Your task to perform on an android device: change keyboard looks Image 0: 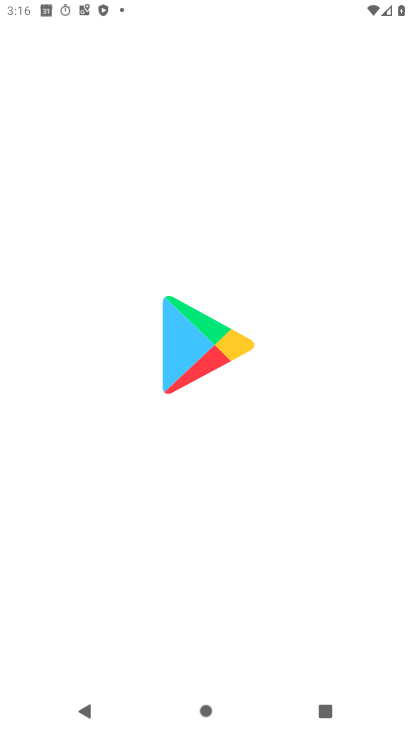
Step 0: press home button
Your task to perform on an android device: change keyboard looks Image 1: 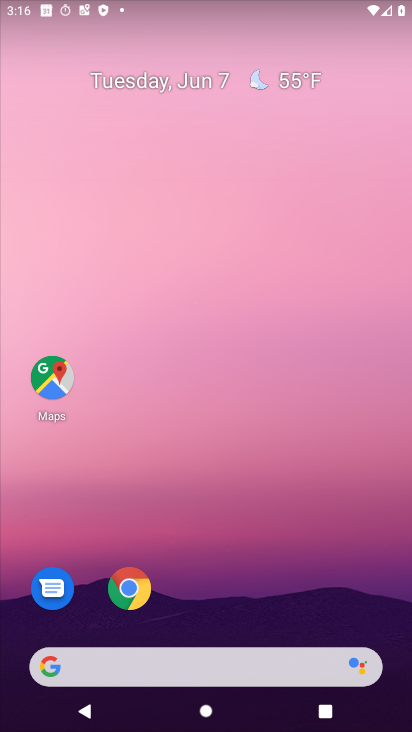
Step 1: drag from (191, 620) to (226, 210)
Your task to perform on an android device: change keyboard looks Image 2: 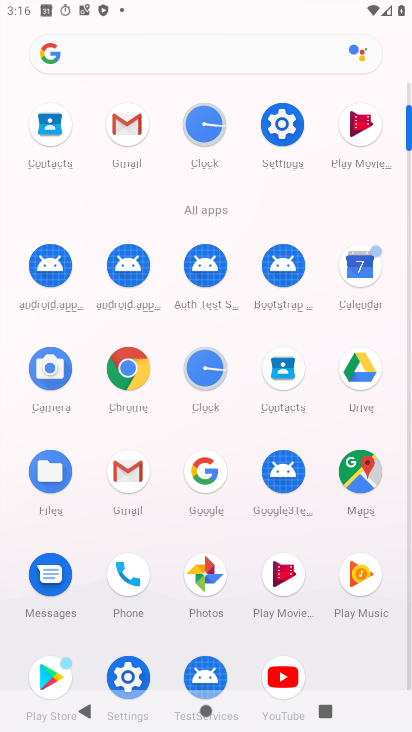
Step 2: click (301, 131)
Your task to perform on an android device: change keyboard looks Image 3: 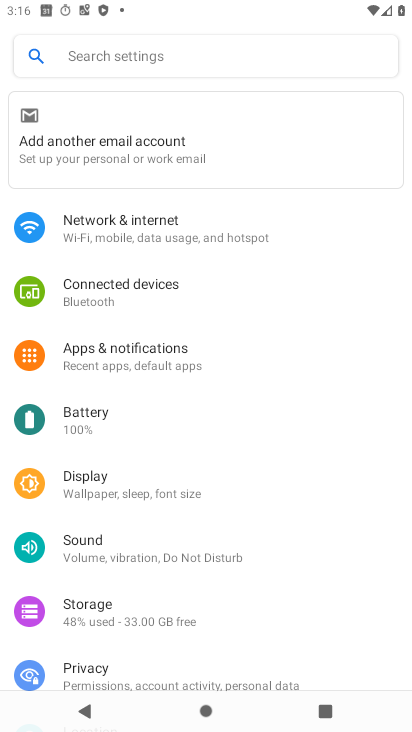
Step 3: drag from (231, 570) to (233, 263)
Your task to perform on an android device: change keyboard looks Image 4: 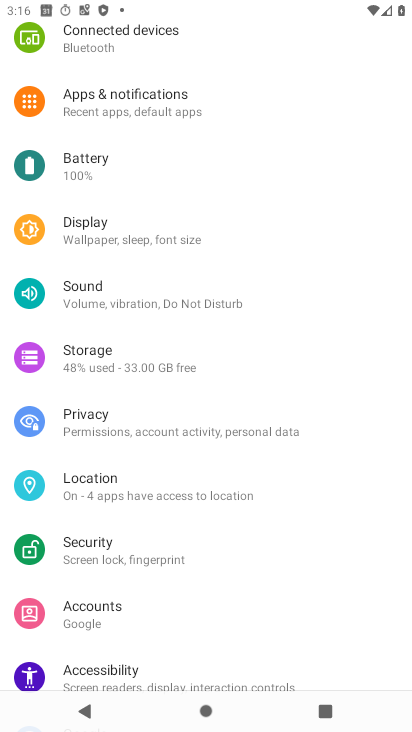
Step 4: drag from (228, 578) to (243, 226)
Your task to perform on an android device: change keyboard looks Image 5: 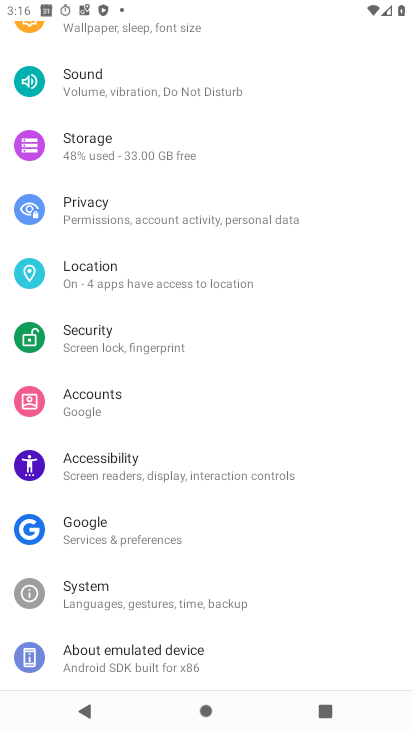
Step 5: click (98, 583)
Your task to perform on an android device: change keyboard looks Image 6: 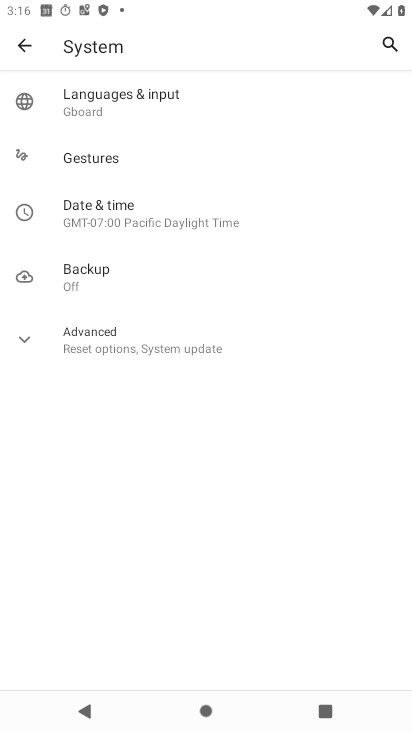
Step 6: click (106, 113)
Your task to perform on an android device: change keyboard looks Image 7: 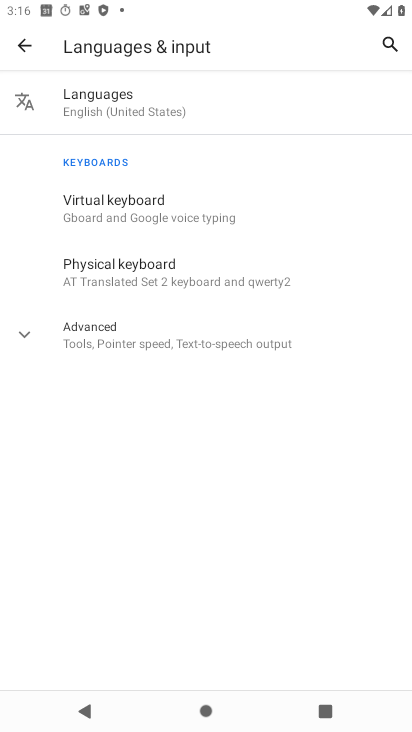
Step 7: click (132, 220)
Your task to perform on an android device: change keyboard looks Image 8: 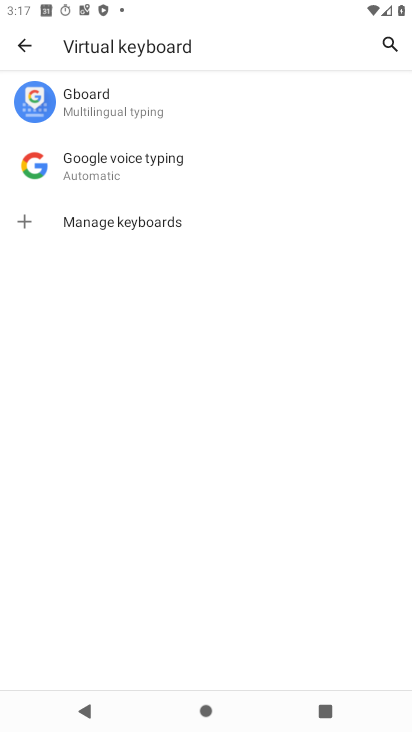
Step 8: click (87, 101)
Your task to perform on an android device: change keyboard looks Image 9: 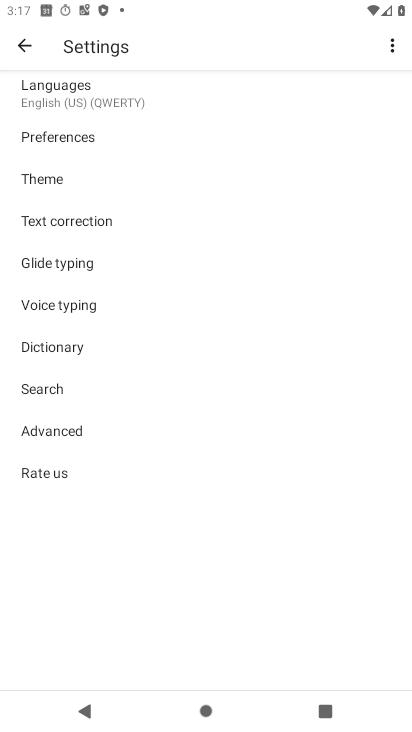
Step 9: click (41, 177)
Your task to perform on an android device: change keyboard looks Image 10: 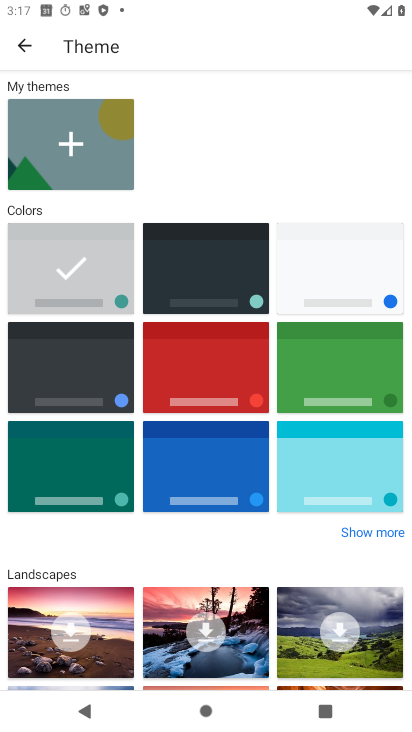
Step 10: click (243, 308)
Your task to perform on an android device: change keyboard looks Image 11: 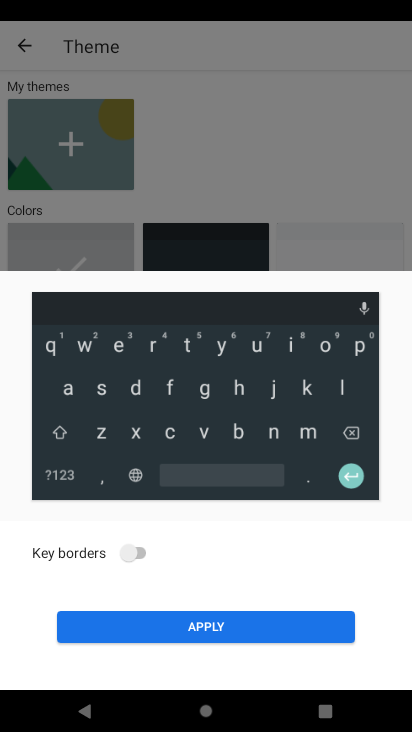
Step 11: click (141, 635)
Your task to perform on an android device: change keyboard looks Image 12: 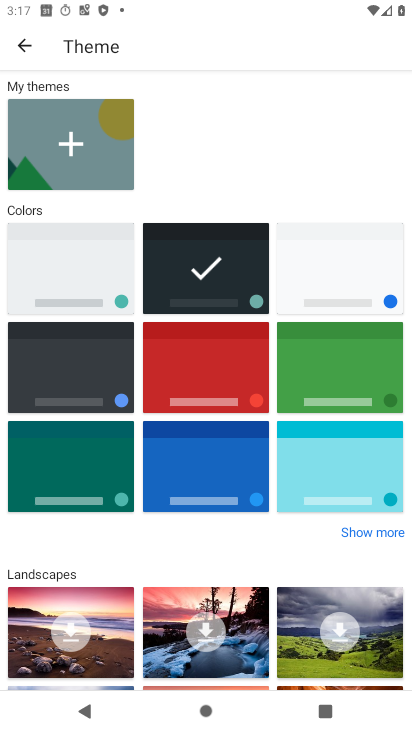
Step 12: click (232, 266)
Your task to perform on an android device: change keyboard looks Image 13: 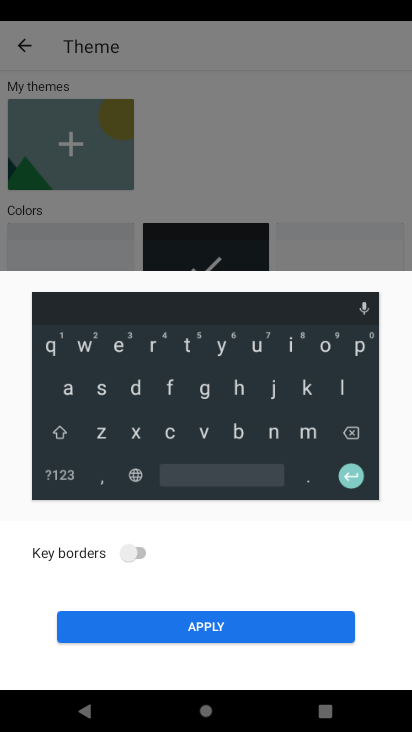
Step 13: click (140, 627)
Your task to perform on an android device: change keyboard looks Image 14: 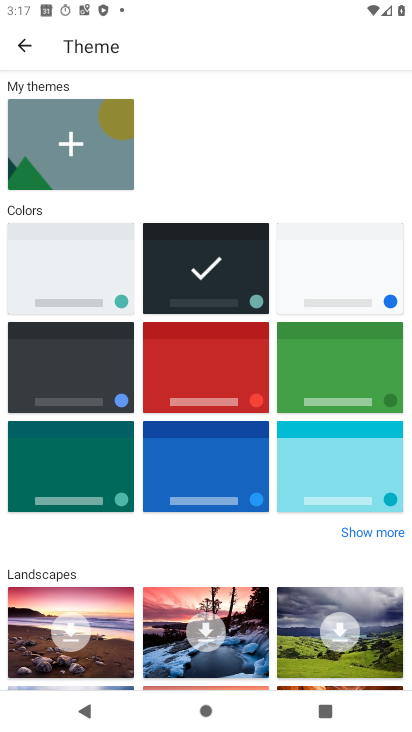
Step 14: task complete